Your task to perform on an android device: toggle notification dots Image 0: 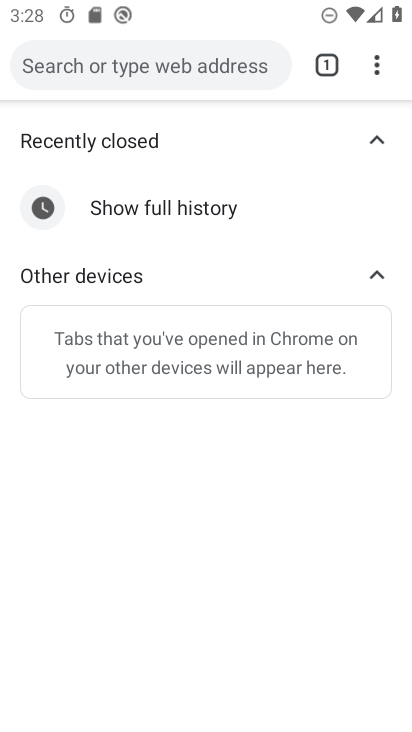
Step 0: press home button
Your task to perform on an android device: toggle notification dots Image 1: 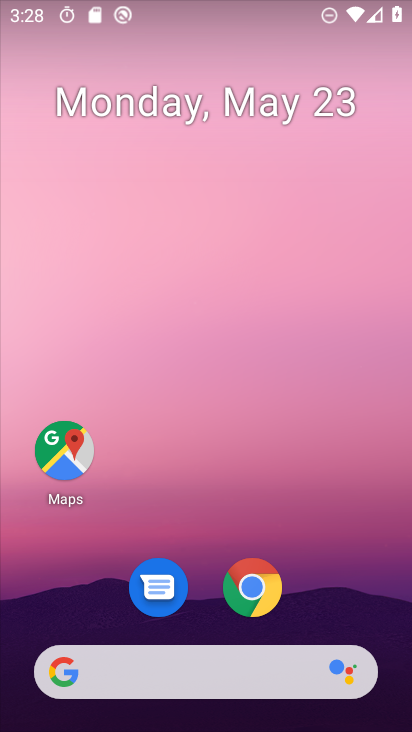
Step 1: drag from (194, 529) to (222, 180)
Your task to perform on an android device: toggle notification dots Image 2: 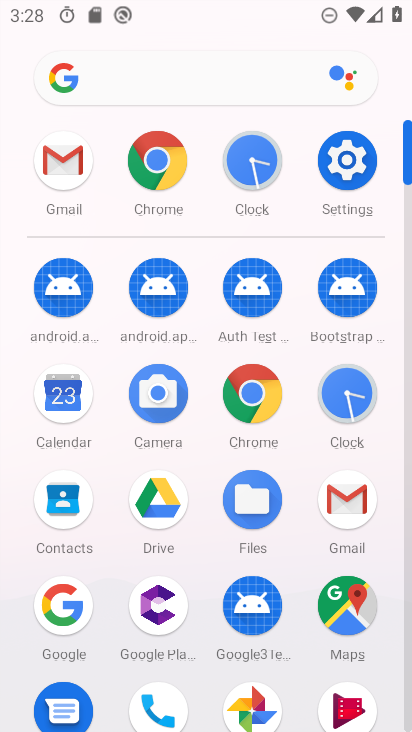
Step 2: click (346, 176)
Your task to perform on an android device: toggle notification dots Image 3: 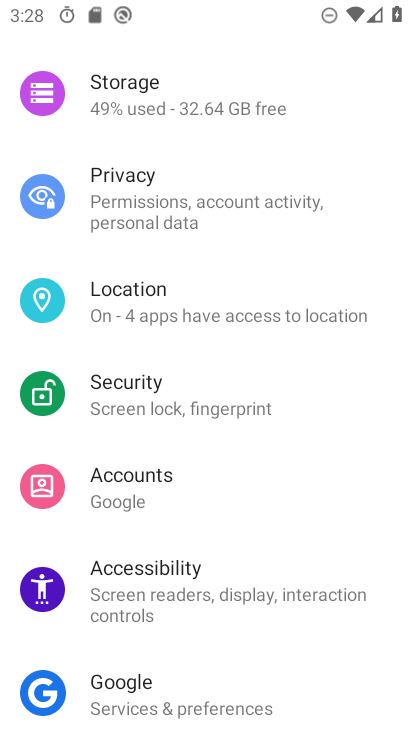
Step 3: drag from (193, 214) to (201, 478)
Your task to perform on an android device: toggle notification dots Image 4: 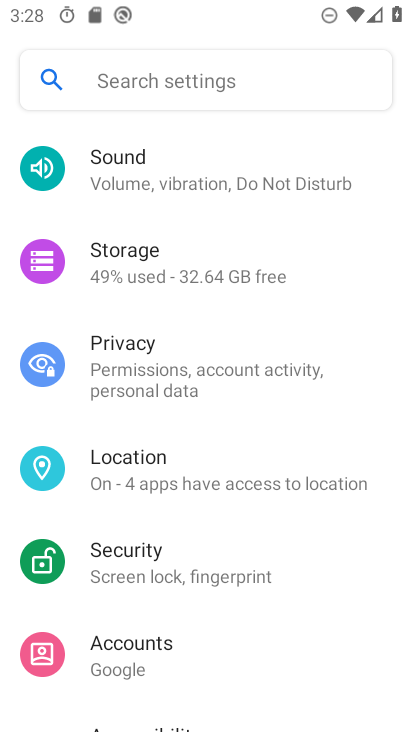
Step 4: drag from (229, 263) to (248, 594)
Your task to perform on an android device: toggle notification dots Image 5: 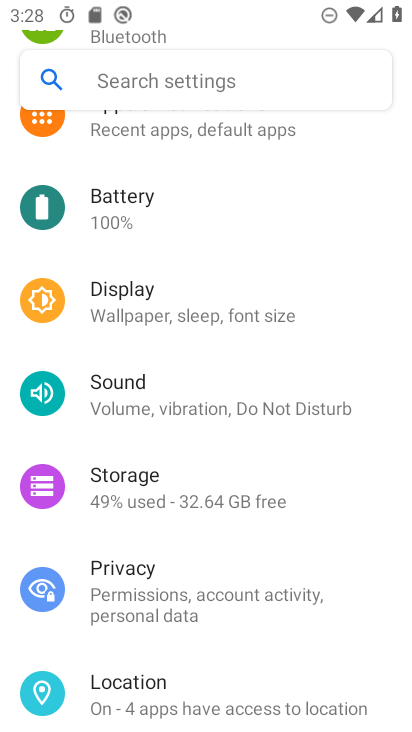
Step 5: drag from (231, 172) to (223, 473)
Your task to perform on an android device: toggle notification dots Image 6: 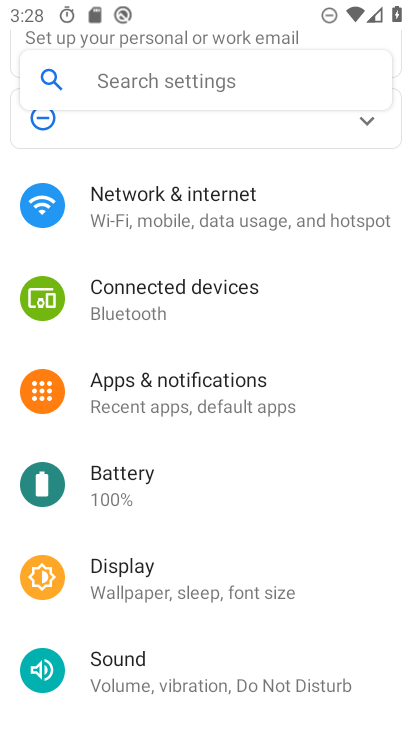
Step 6: click (224, 389)
Your task to perform on an android device: toggle notification dots Image 7: 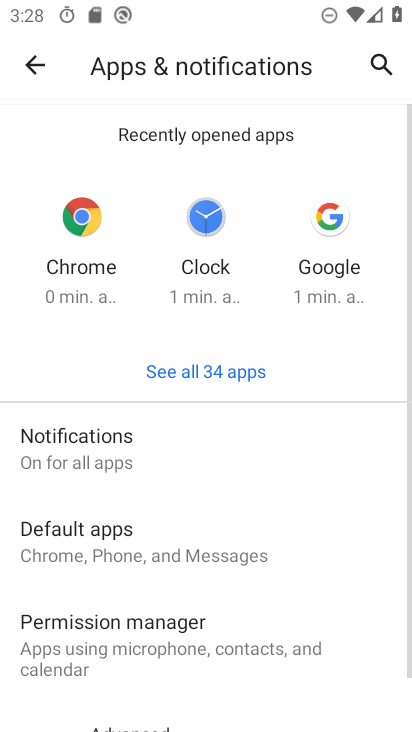
Step 7: click (163, 452)
Your task to perform on an android device: toggle notification dots Image 8: 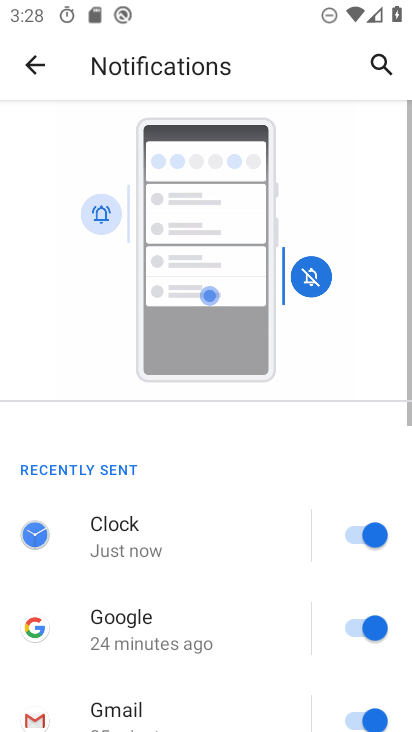
Step 8: drag from (205, 552) to (271, 4)
Your task to perform on an android device: toggle notification dots Image 9: 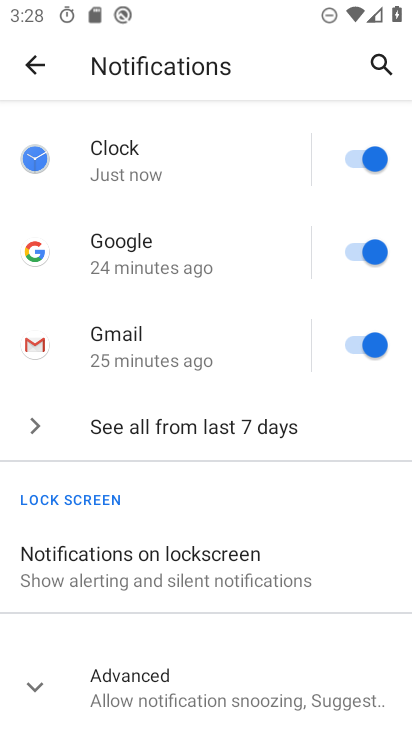
Step 9: click (130, 684)
Your task to perform on an android device: toggle notification dots Image 10: 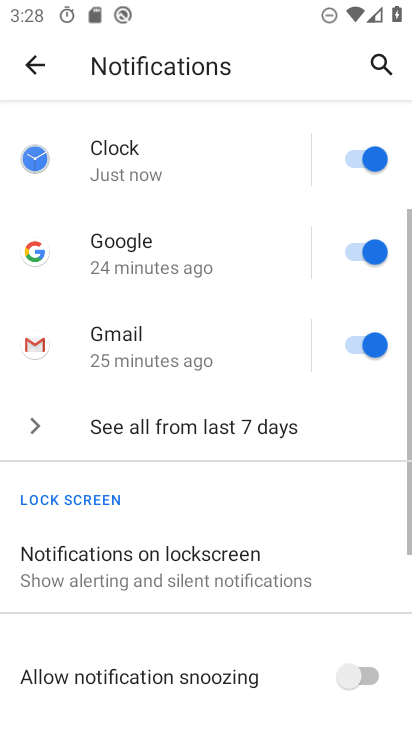
Step 10: drag from (235, 652) to (284, 113)
Your task to perform on an android device: toggle notification dots Image 11: 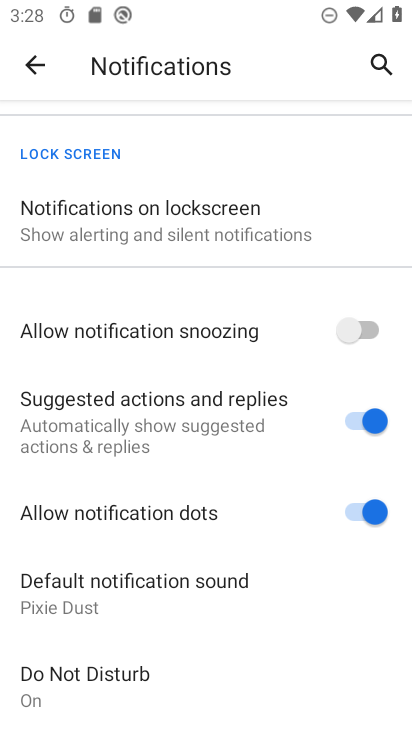
Step 11: click (350, 512)
Your task to perform on an android device: toggle notification dots Image 12: 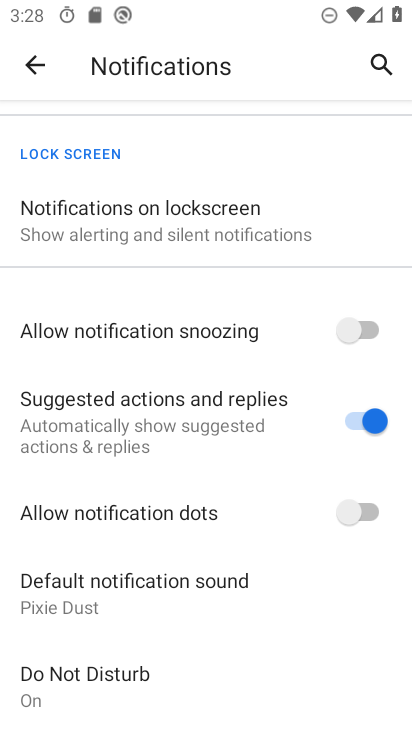
Step 12: task complete